Your task to perform on an android device: Open network settings Image 0: 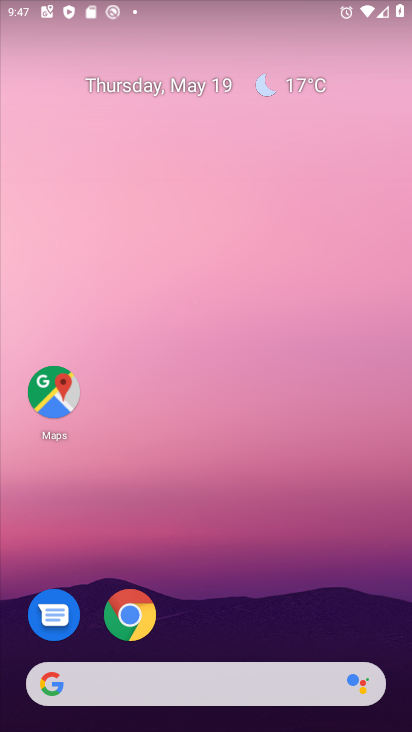
Step 0: drag from (365, 641) to (325, 119)
Your task to perform on an android device: Open network settings Image 1: 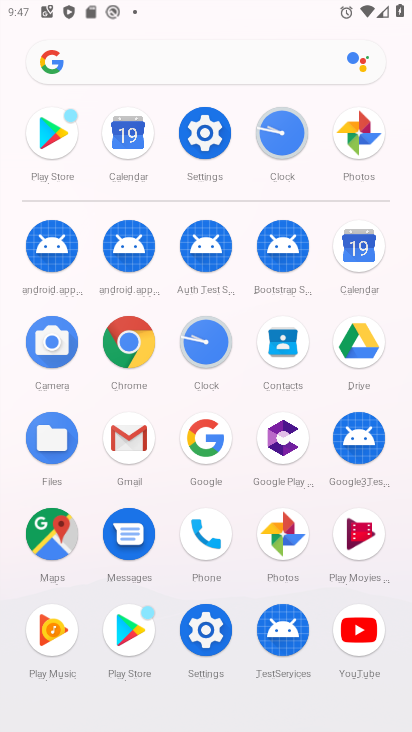
Step 1: click (216, 134)
Your task to perform on an android device: Open network settings Image 2: 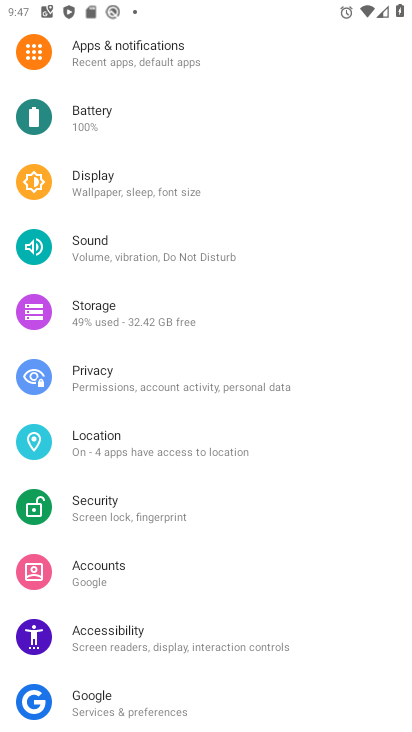
Step 2: drag from (162, 147) to (222, 730)
Your task to perform on an android device: Open network settings Image 3: 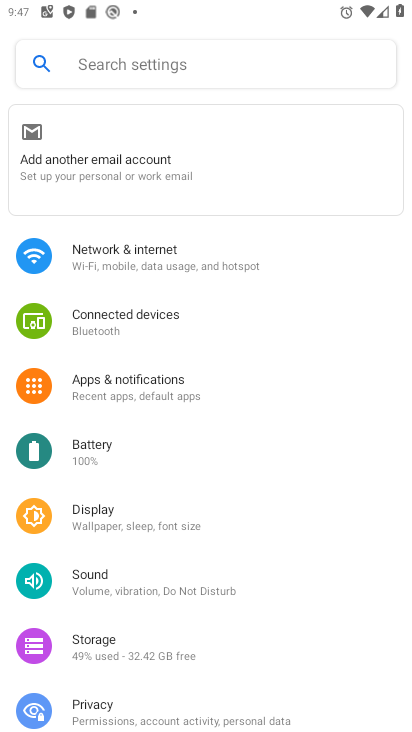
Step 3: click (130, 248)
Your task to perform on an android device: Open network settings Image 4: 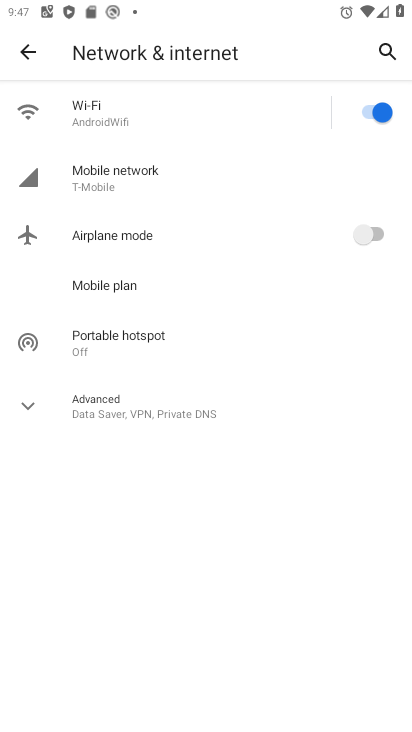
Step 4: task complete